Your task to perform on an android device: Open Maps and search for coffee Image 0: 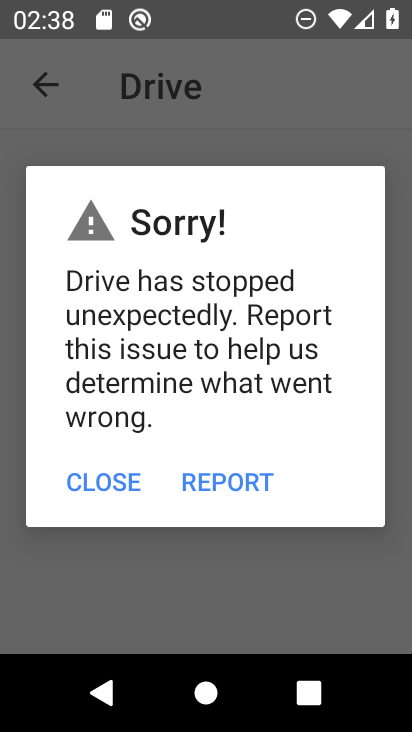
Step 0: press home button
Your task to perform on an android device: Open Maps and search for coffee Image 1: 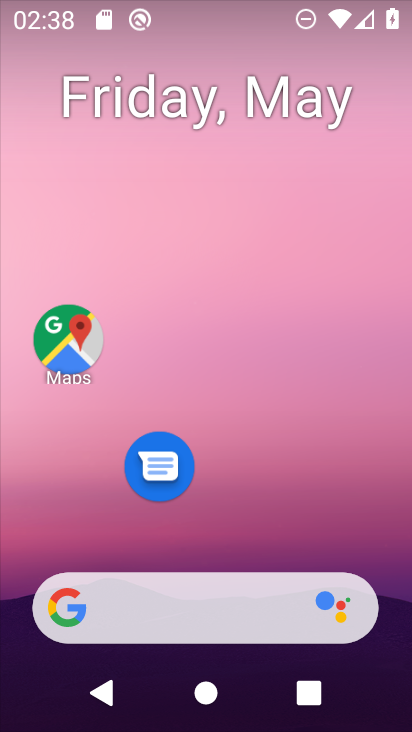
Step 1: drag from (307, 553) to (297, 188)
Your task to perform on an android device: Open Maps and search for coffee Image 2: 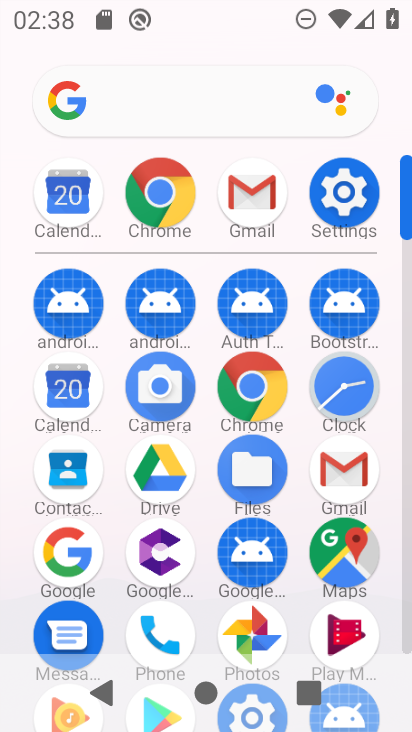
Step 2: click (343, 540)
Your task to perform on an android device: Open Maps and search for coffee Image 3: 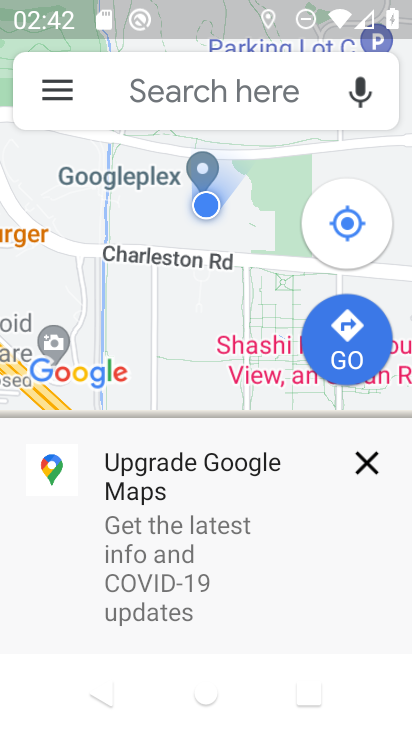
Step 3: click (198, 96)
Your task to perform on an android device: Open Maps and search for coffee Image 4: 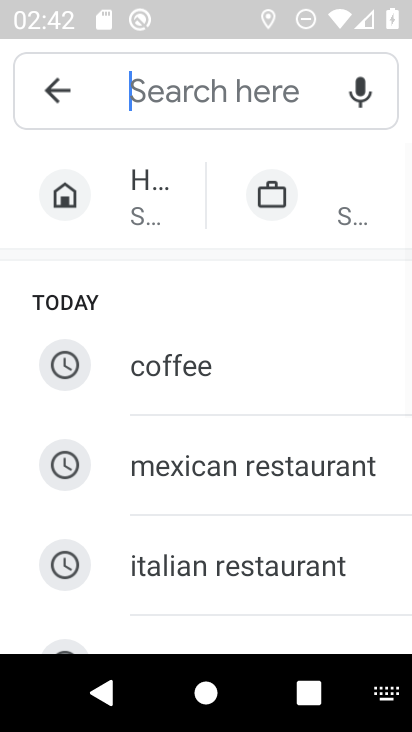
Step 4: click (237, 354)
Your task to perform on an android device: Open Maps and search for coffee Image 5: 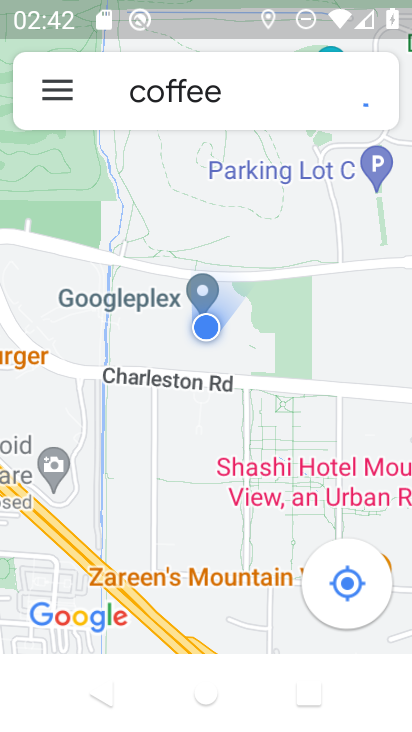
Step 5: task complete